Your task to perform on an android device: toggle priority inbox in the gmail app Image 0: 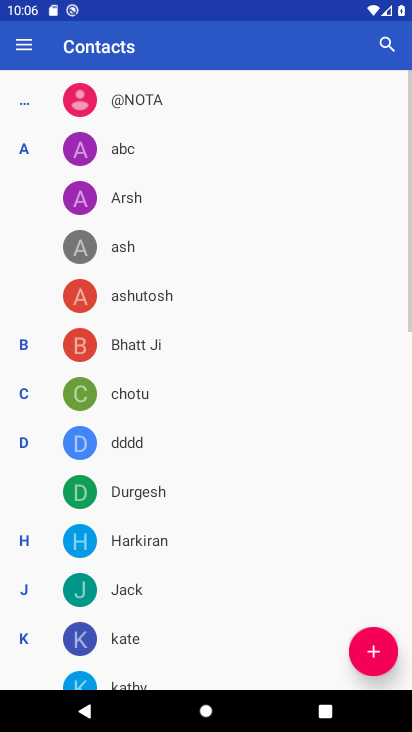
Step 0: press home button
Your task to perform on an android device: toggle priority inbox in the gmail app Image 1: 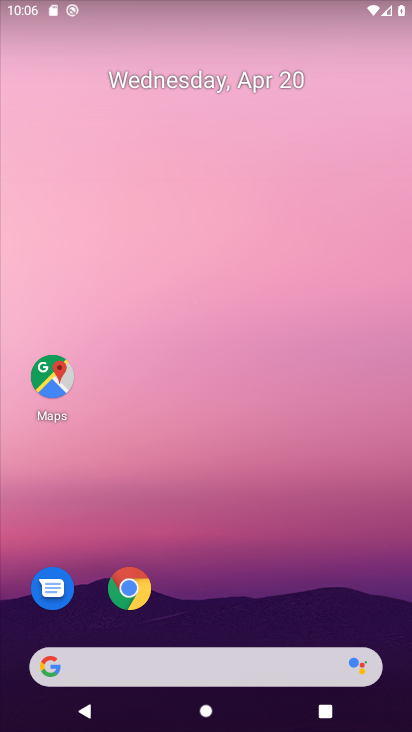
Step 1: drag from (204, 636) to (217, 227)
Your task to perform on an android device: toggle priority inbox in the gmail app Image 2: 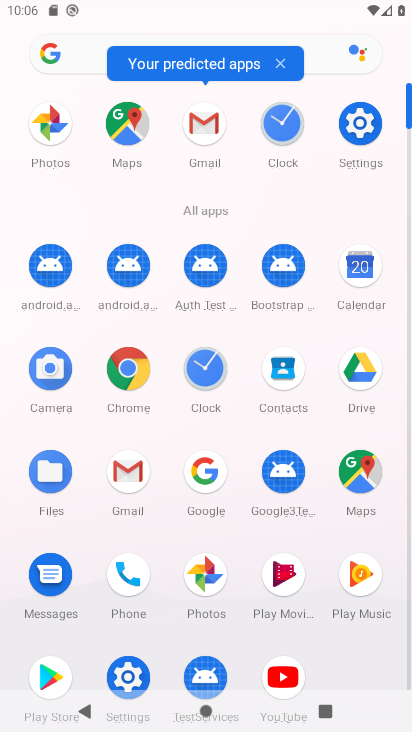
Step 2: click (128, 478)
Your task to perform on an android device: toggle priority inbox in the gmail app Image 3: 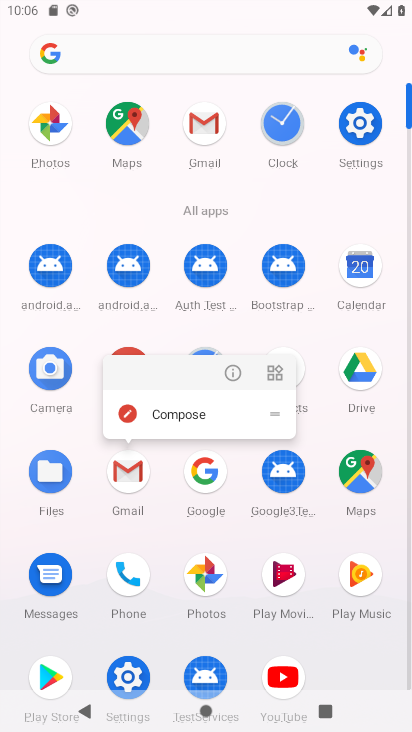
Step 3: click (128, 478)
Your task to perform on an android device: toggle priority inbox in the gmail app Image 4: 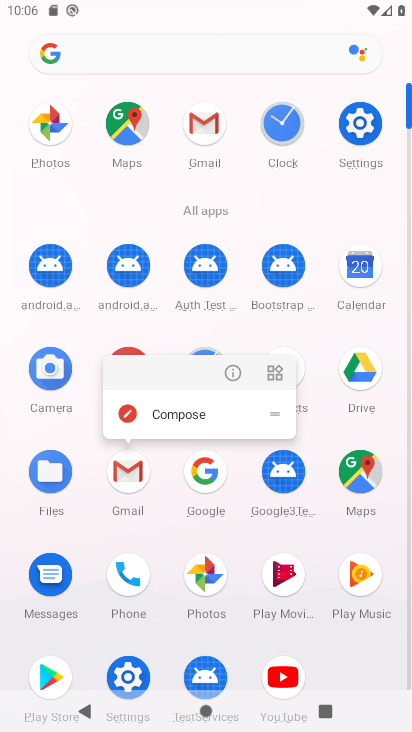
Step 4: click (128, 478)
Your task to perform on an android device: toggle priority inbox in the gmail app Image 5: 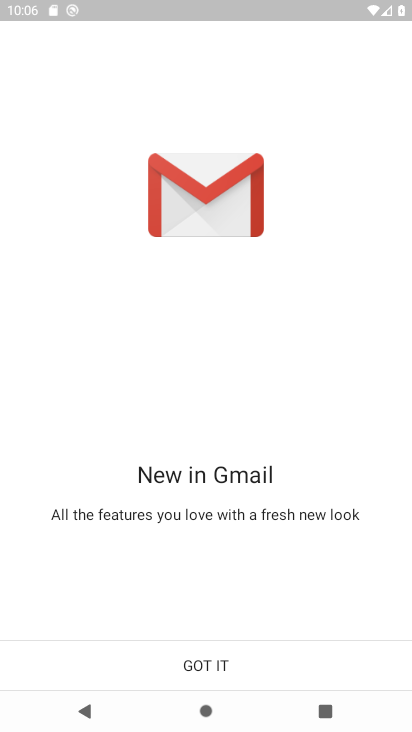
Step 5: click (194, 680)
Your task to perform on an android device: toggle priority inbox in the gmail app Image 6: 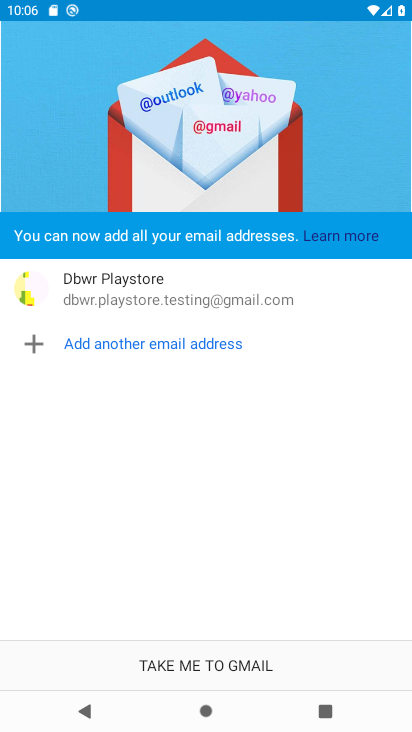
Step 6: click (202, 672)
Your task to perform on an android device: toggle priority inbox in the gmail app Image 7: 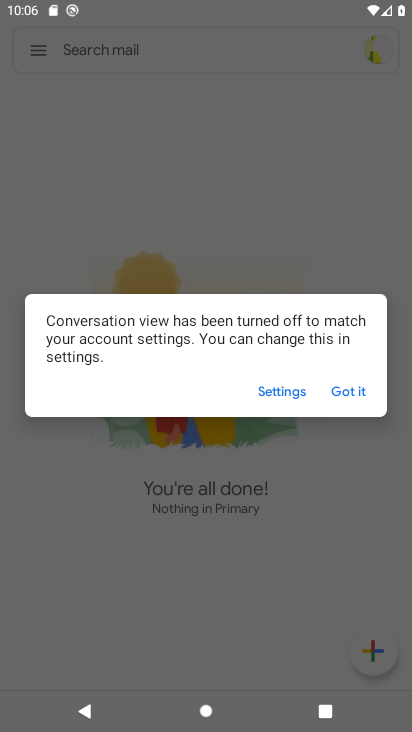
Step 7: click (354, 388)
Your task to perform on an android device: toggle priority inbox in the gmail app Image 8: 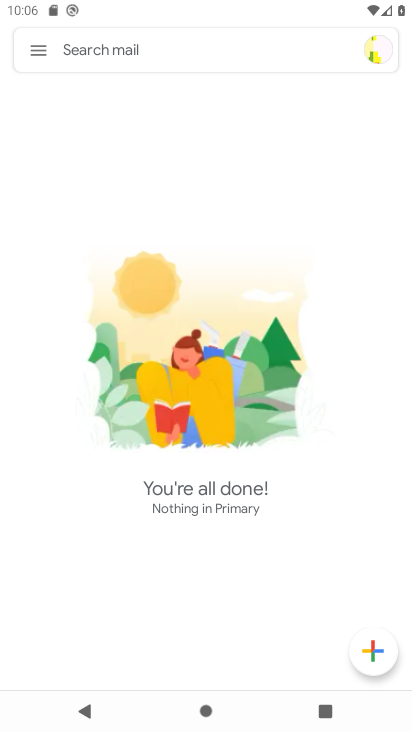
Step 8: click (32, 54)
Your task to perform on an android device: toggle priority inbox in the gmail app Image 9: 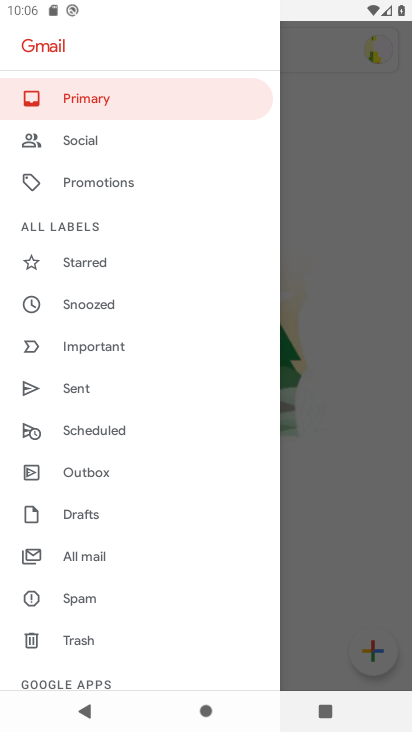
Step 9: drag from (123, 612) to (117, 169)
Your task to perform on an android device: toggle priority inbox in the gmail app Image 10: 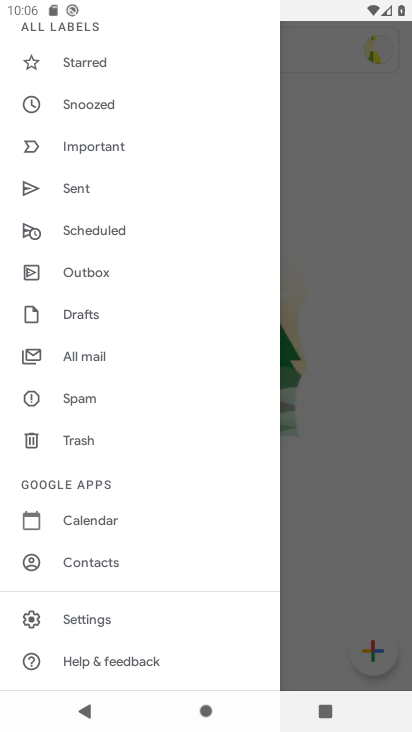
Step 10: click (88, 623)
Your task to perform on an android device: toggle priority inbox in the gmail app Image 11: 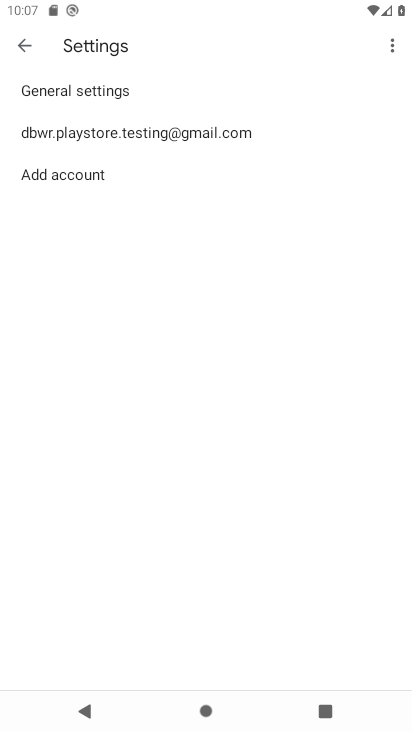
Step 11: click (172, 132)
Your task to perform on an android device: toggle priority inbox in the gmail app Image 12: 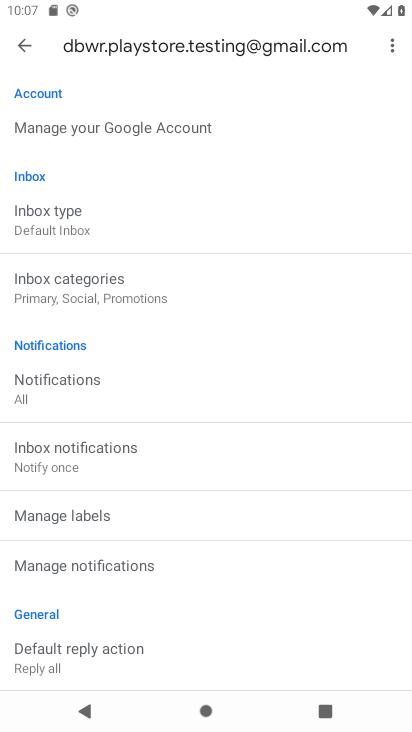
Step 12: click (87, 222)
Your task to perform on an android device: toggle priority inbox in the gmail app Image 13: 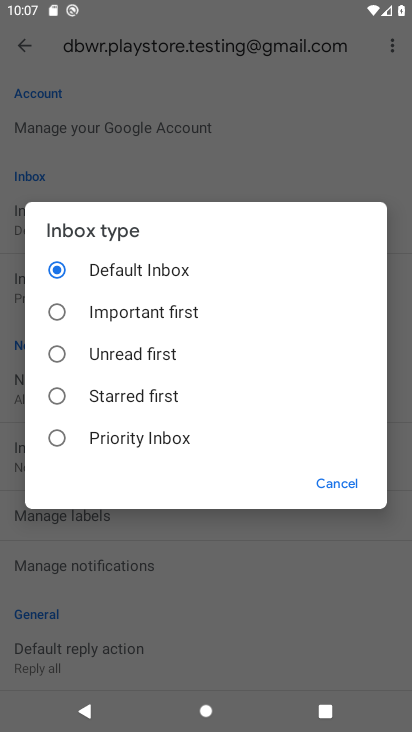
Step 13: click (107, 439)
Your task to perform on an android device: toggle priority inbox in the gmail app Image 14: 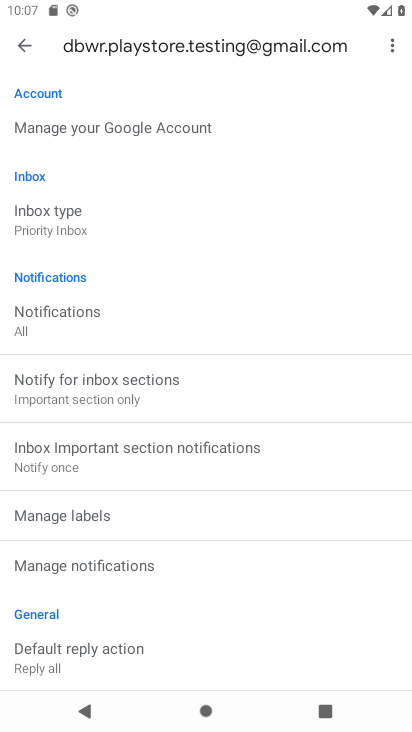
Step 14: task complete